Your task to perform on an android device: Go to sound settings Image 0: 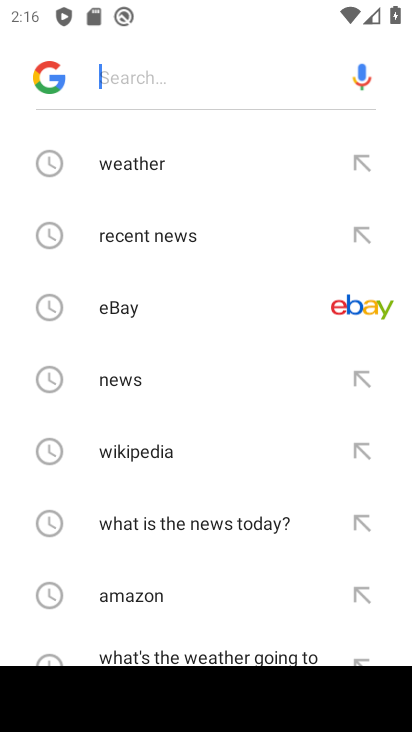
Step 0: press home button
Your task to perform on an android device: Go to sound settings Image 1: 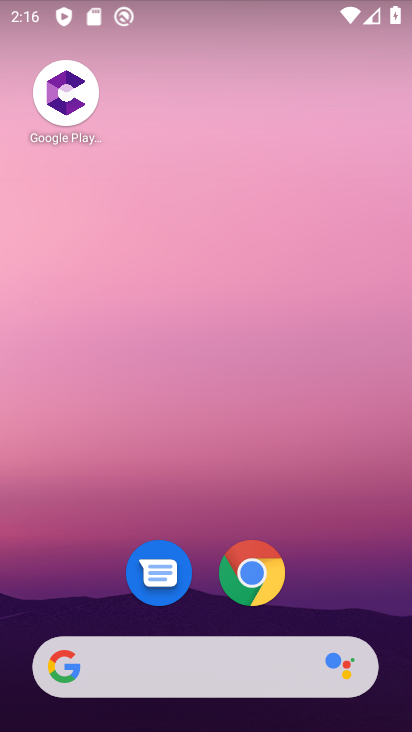
Step 1: drag from (203, 613) to (214, 3)
Your task to perform on an android device: Go to sound settings Image 2: 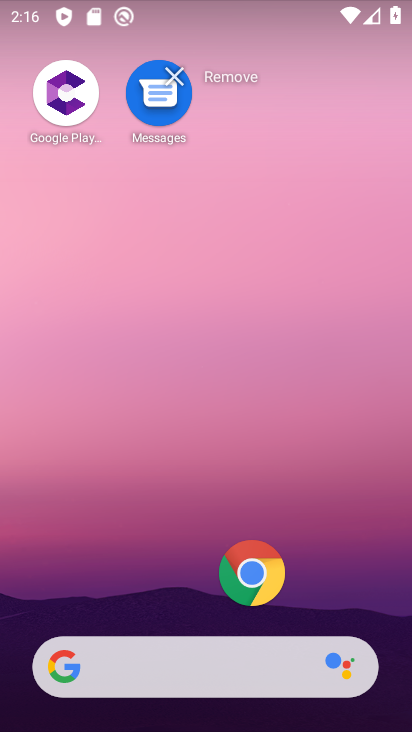
Step 2: click (153, 318)
Your task to perform on an android device: Go to sound settings Image 3: 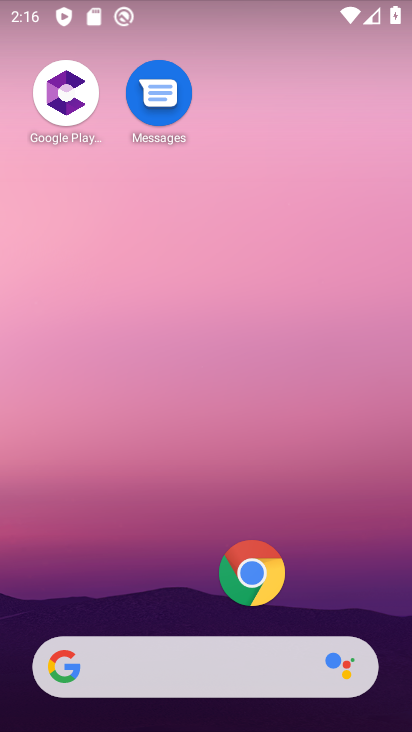
Step 3: click (364, 575)
Your task to perform on an android device: Go to sound settings Image 4: 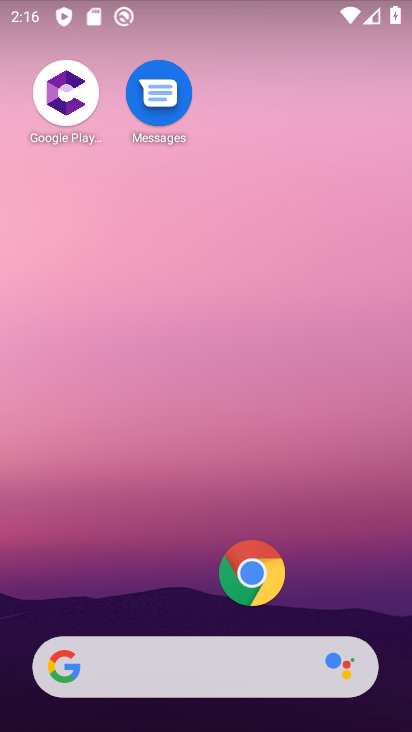
Step 4: drag from (156, 538) to (134, 74)
Your task to perform on an android device: Go to sound settings Image 5: 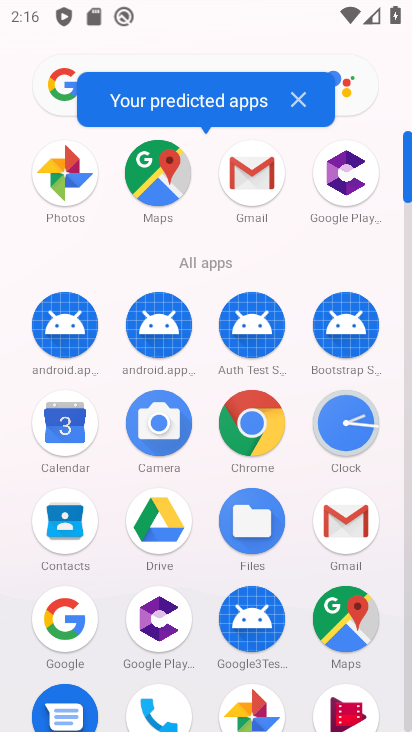
Step 5: drag from (211, 557) to (226, 135)
Your task to perform on an android device: Go to sound settings Image 6: 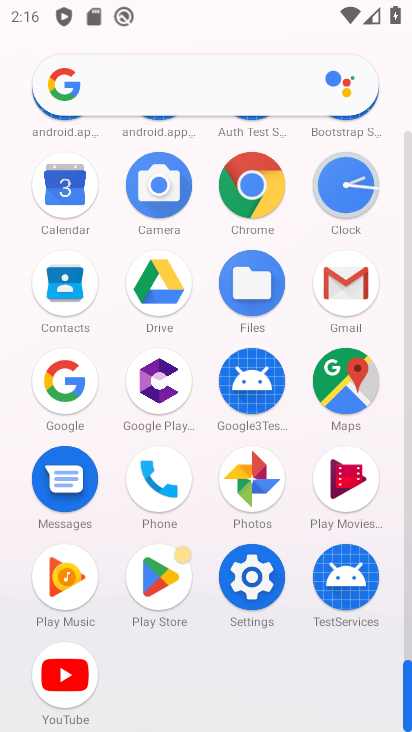
Step 6: click (256, 596)
Your task to perform on an android device: Go to sound settings Image 7: 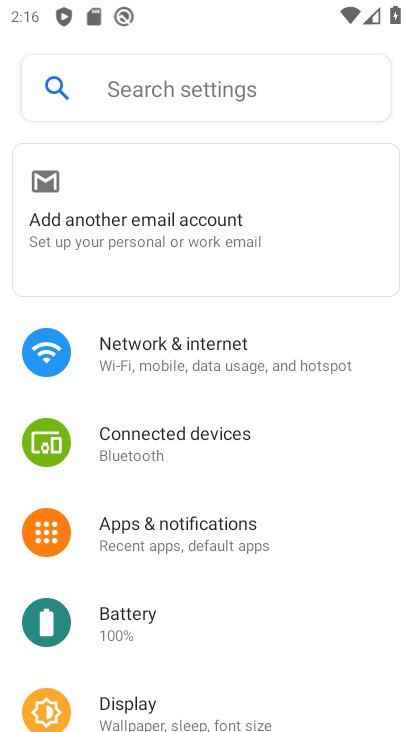
Step 7: drag from (218, 676) to (229, 475)
Your task to perform on an android device: Go to sound settings Image 8: 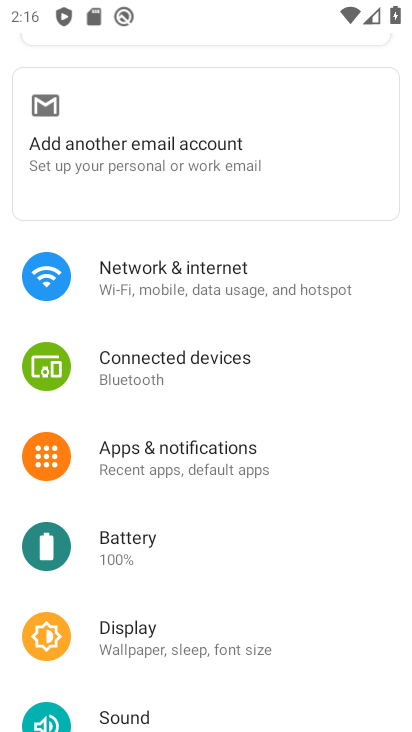
Step 8: drag from (154, 630) to (156, 520)
Your task to perform on an android device: Go to sound settings Image 9: 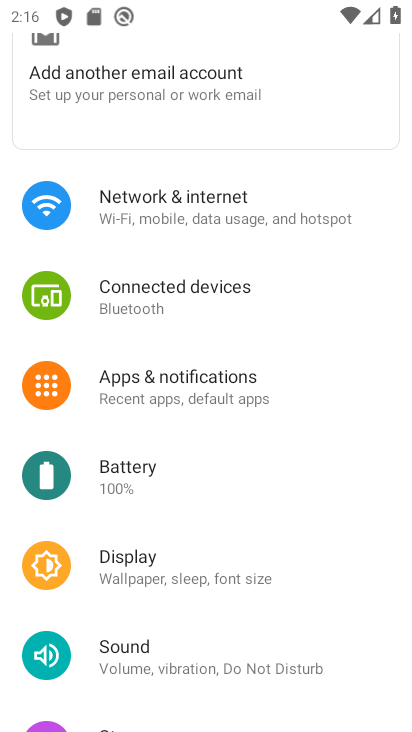
Step 9: click (127, 653)
Your task to perform on an android device: Go to sound settings Image 10: 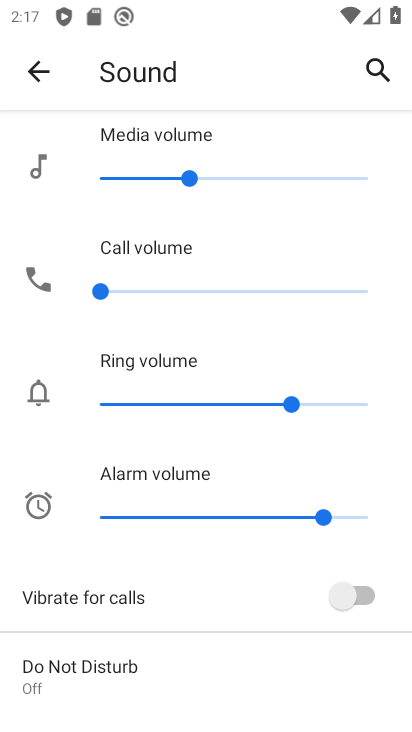
Step 10: task complete